Your task to perform on an android device: What's a good restaurant in San Jose? Image 0: 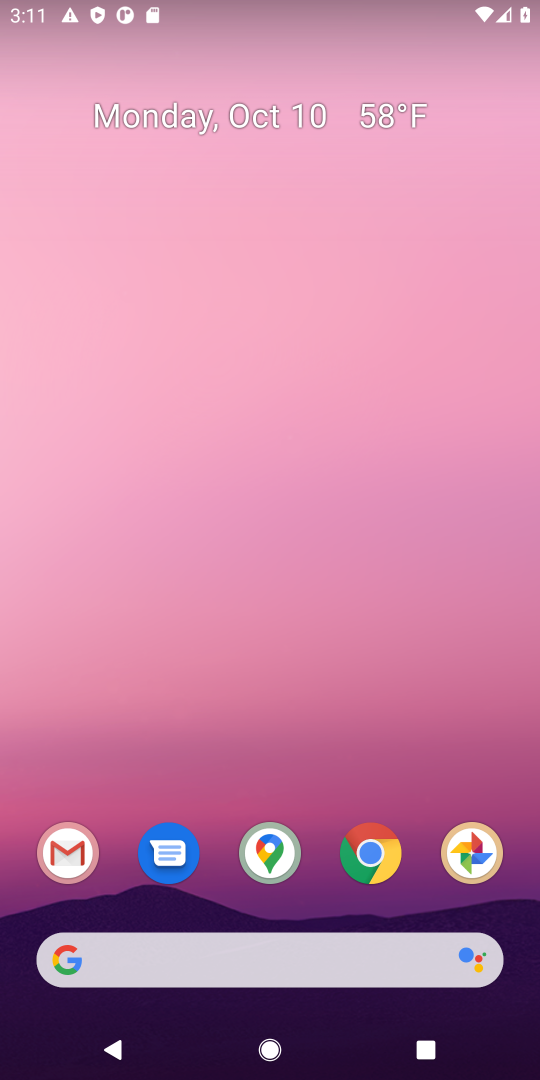
Step 0: click (250, 946)
Your task to perform on an android device: What's a good restaurant in San Jose? Image 1: 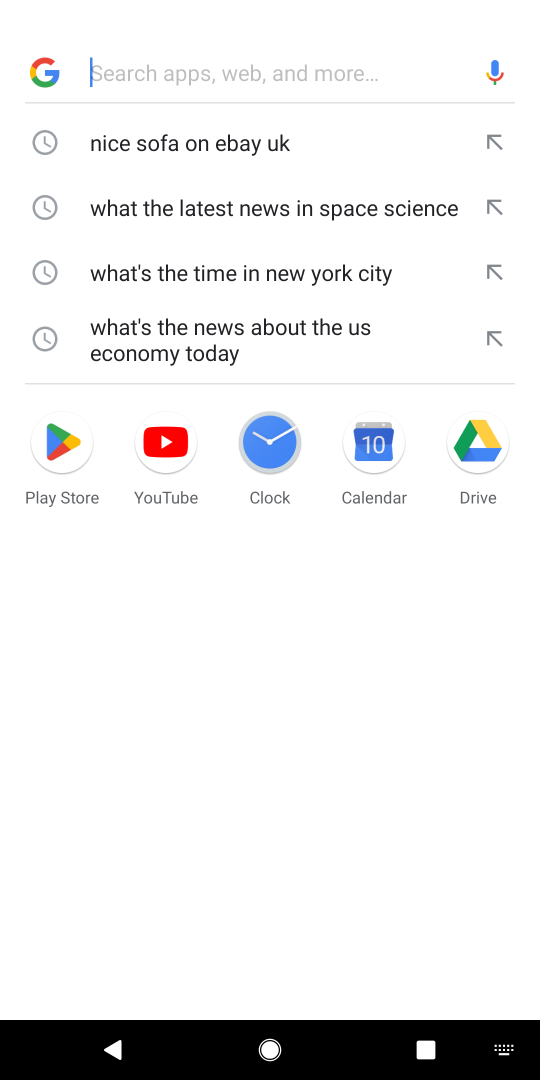
Step 1: click (182, 73)
Your task to perform on an android device: What's a good restaurant in San Jose? Image 2: 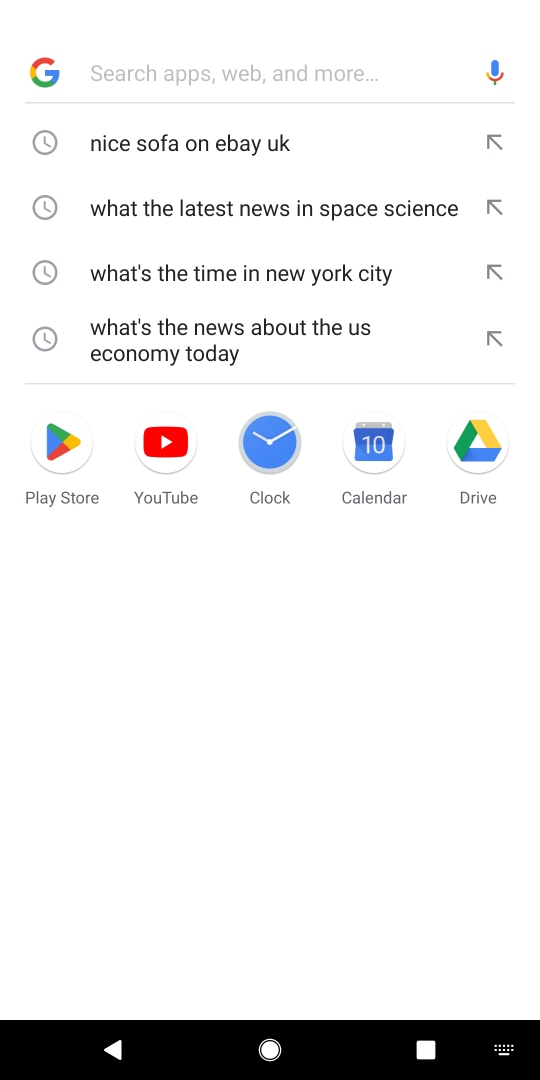
Step 2: type "What's a good restaurant in San Jose?"
Your task to perform on an android device: What's a good restaurant in San Jose? Image 3: 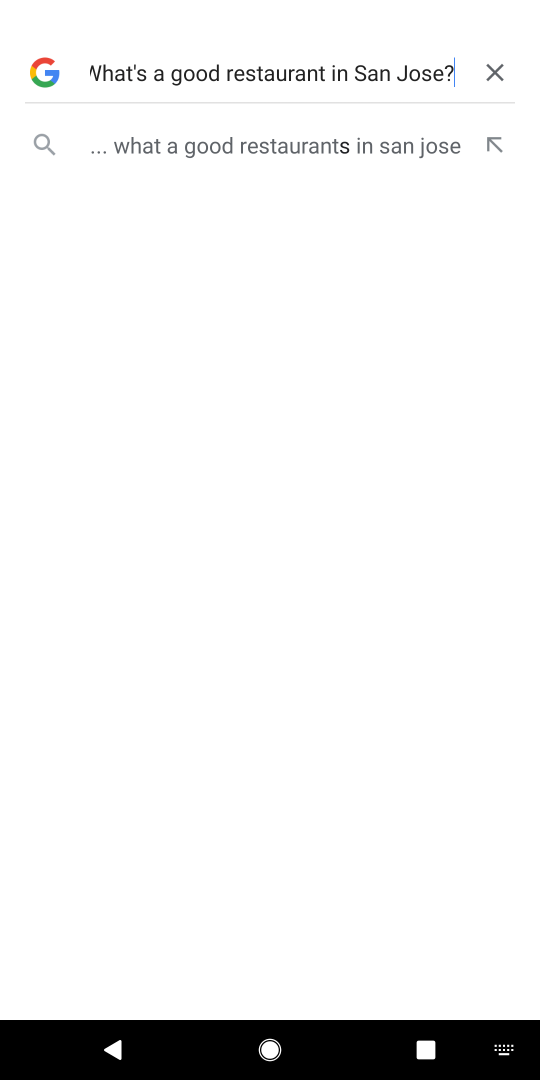
Step 3: click (254, 146)
Your task to perform on an android device: What's a good restaurant in San Jose? Image 4: 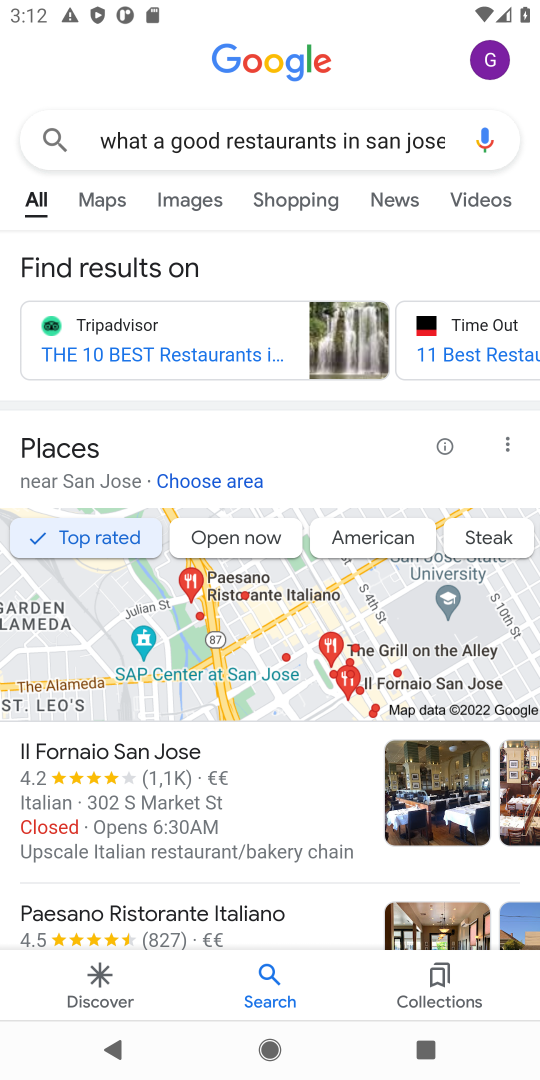
Step 4: task complete